Your task to perform on an android device: Open location settings Image 0: 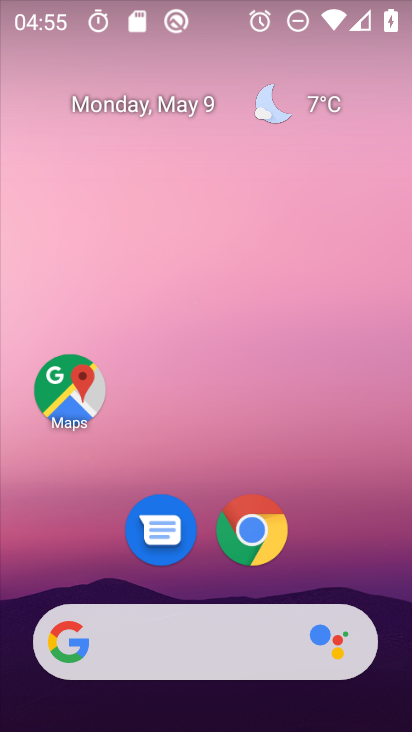
Step 0: drag from (185, 569) to (276, 113)
Your task to perform on an android device: Open location settings Image 1: 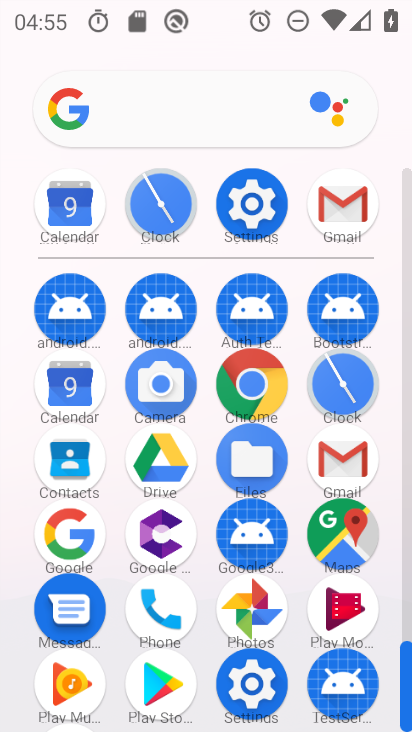
Step 1: click (256, 200)
Your task to perform on an android device: Open location settings Image 2: 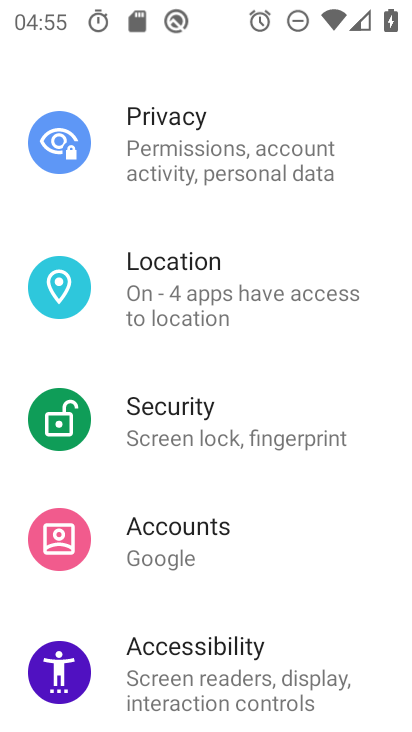
Step 2: click (201, 287)
Your task to perform on an android device: Open location settings Image 3: 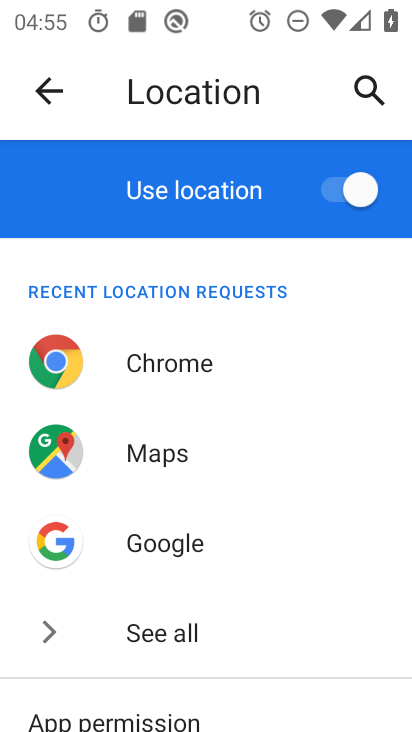
Step 3: task complete